Your task to perform on an android device: add a label to a message in the gmail app Image 0: 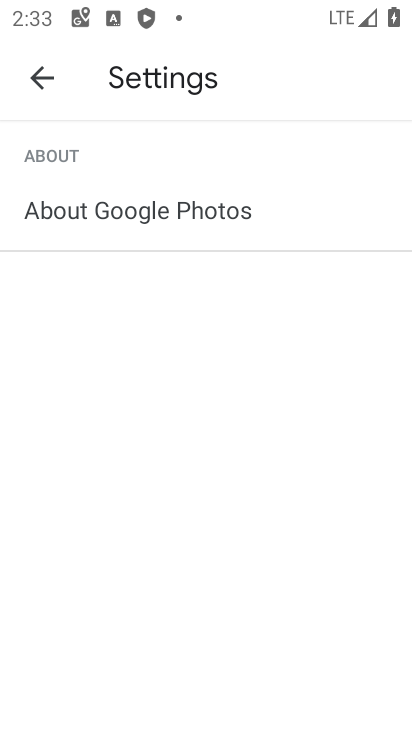
Step 0: press home button
Your task to perform on an android device: add a label to a message in the gmail app Image 1: 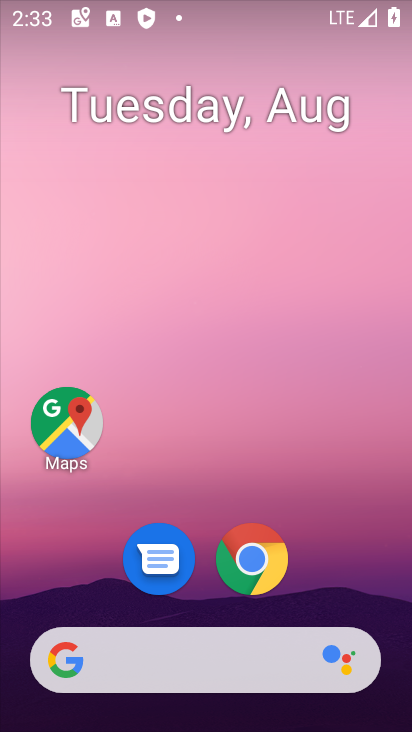
Step 1: drag from (197, 491) to (208, 74)
Your task to perform on an android device: add a label to a message in the gmail app Image 2: 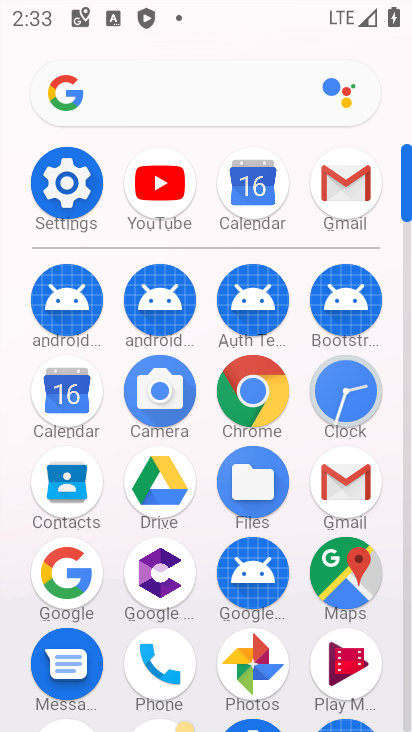
Step 2: click (342, 203)
Your task to perform on an android device: add a label to a message in the gmail app Image 3: 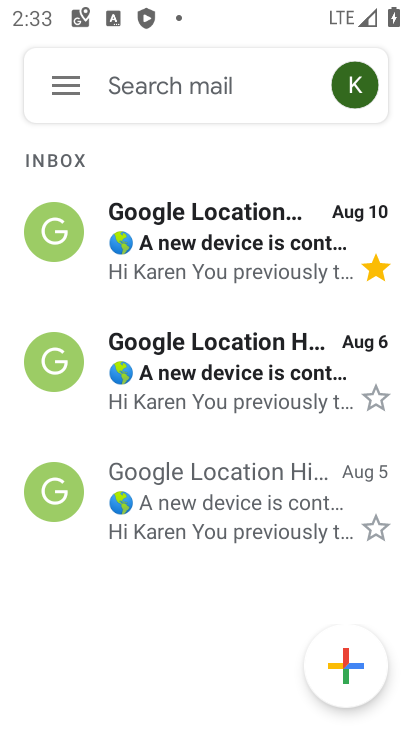
Step 3: click (216, 281)
Your task to perform on an android device: add a label to a message in the gmail app Image 4: 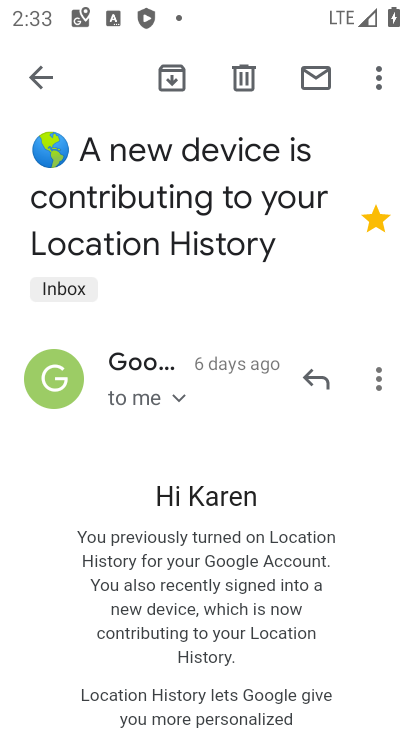
Step 4: click (370, 80)
Your task to perform on an android device: add a label to a message in the gmail app Image 5: 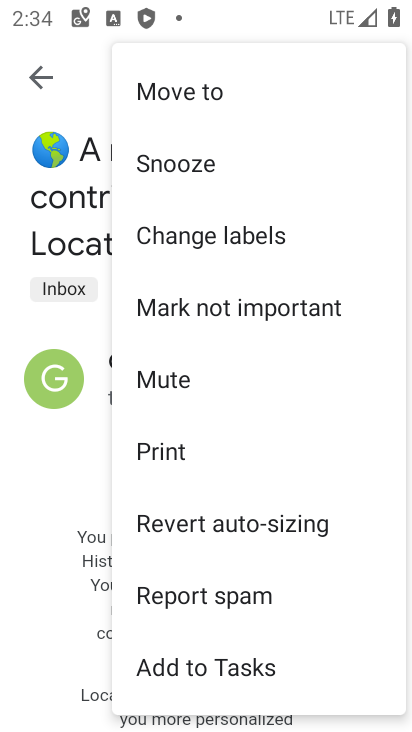
Step 5: click (244, 238)
Your task to perform on an android device: add a label to a message in the gmail app Image 6: 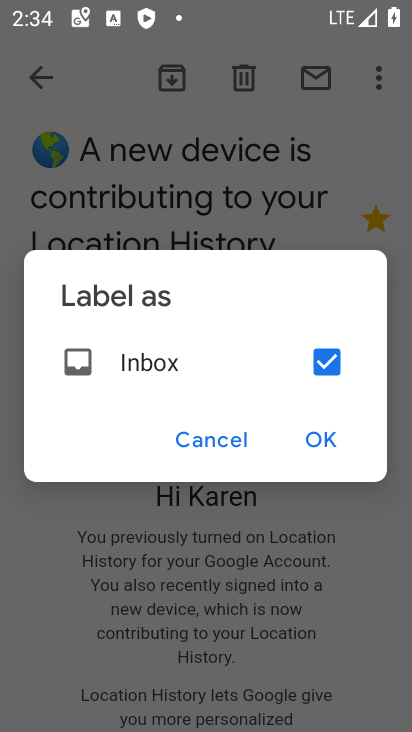
Step 6: click (328, 431)
Your task to perform on an android device: add a label to a message in the gmail app Image 7: 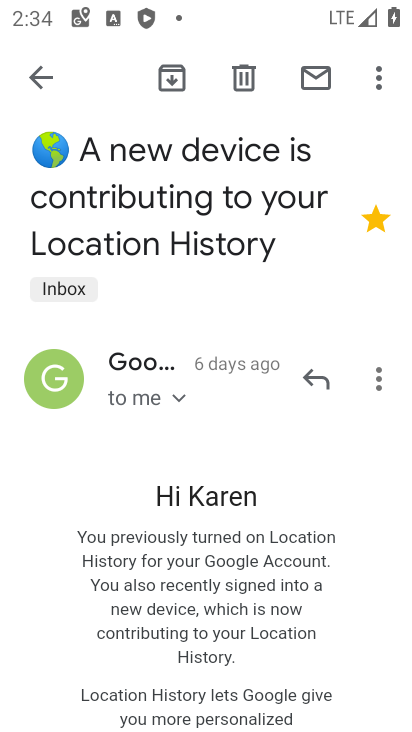
Step 7: task complete